Your task to perform on an android device: move an email to a new category in the gmail app Image 0: 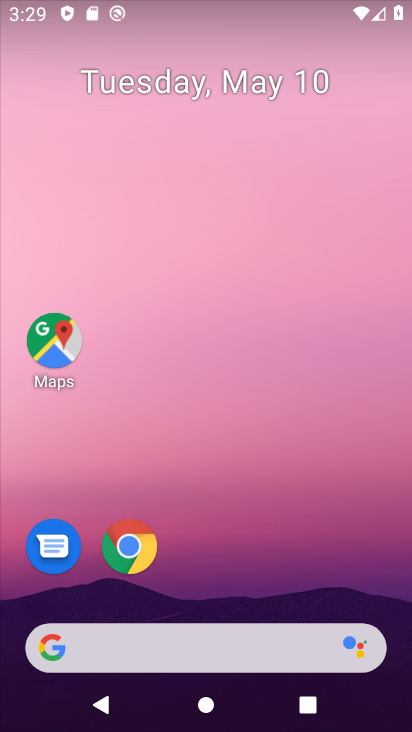
Step 0: drag from (188, 609) to (236, 161)
Your task to perform on an android device: move an email to a new category in the gmail app Image 1: 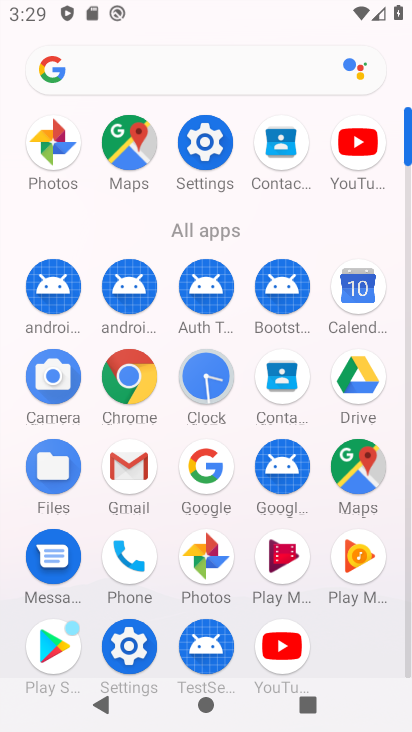
Step 1: click (118, 480)
Your task to perform on an android device: move an email to a new category in the gmail app Image 2: 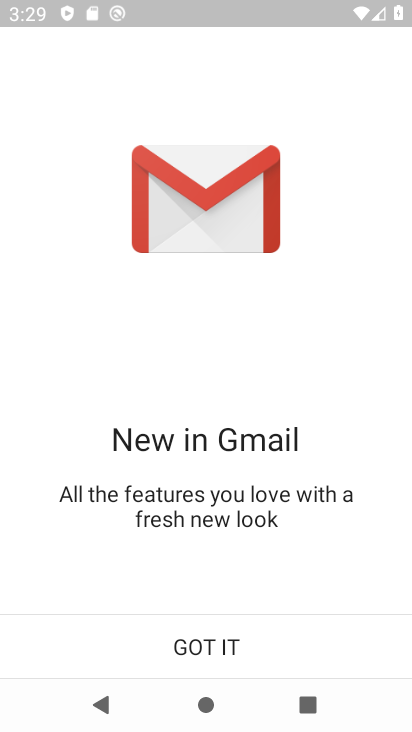
Step 2: click (227, 655)
Your task to perform on an android device: move an email to a new category in the gmail app Image 3: 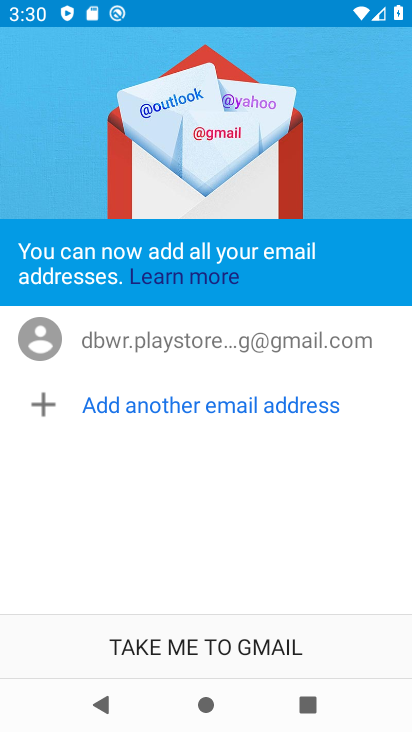
Step 3: click (218, 643)
Your task to perform on an android device: move an email to a new category in the gmail app Image 4: 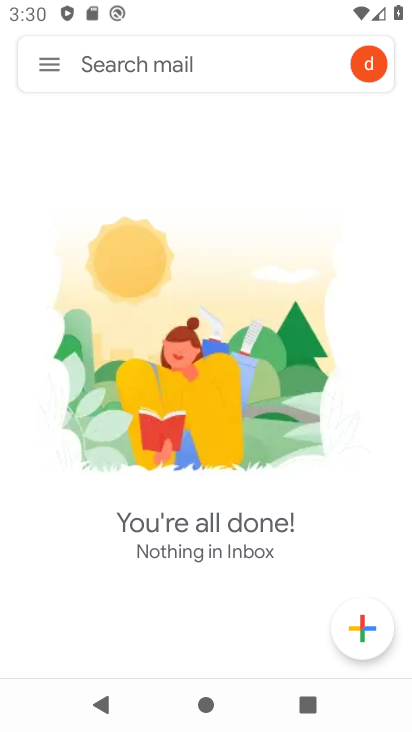
Step 4: click (59, 68)
Your task to perform on an android device: move an email to a new category in the gmail app Image 5: 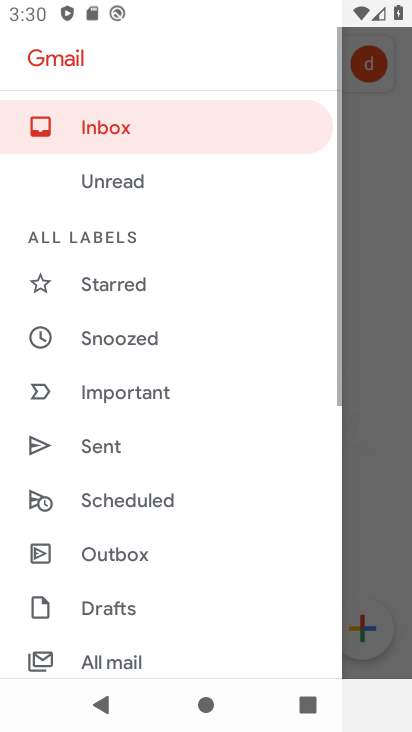
Step 5: drag from (121, 617) to (176, 388)
Your task to perform on an android device: move an email to a new category in the gmail app Image 6: 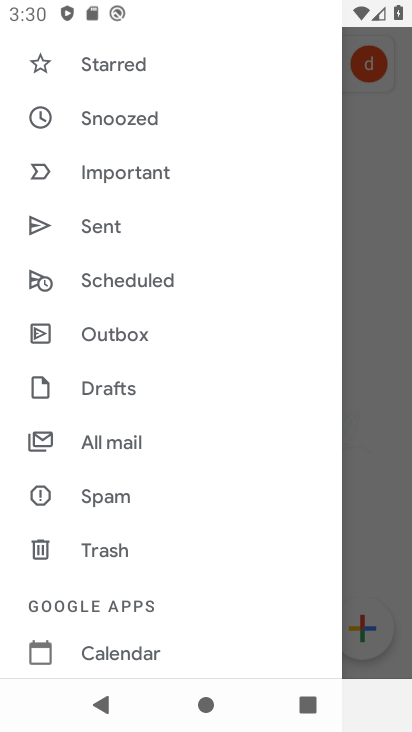
Step 6: click (155, 439)
Your task to perform on an android device: move an email to a new category in the gmail app Image 7: 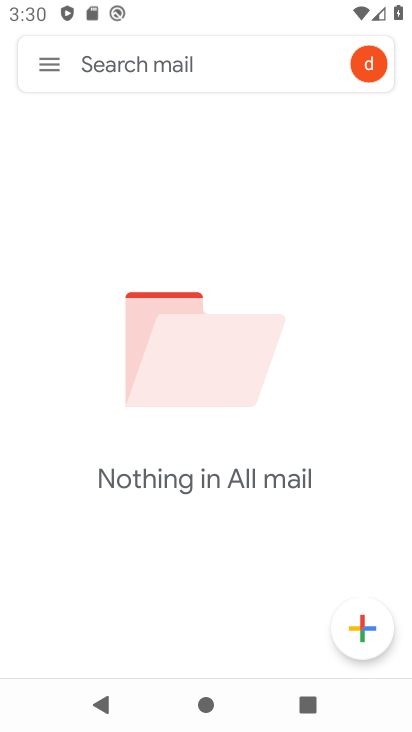
Step 7: task complete